Your task to perform on an android device: turn on translation in the chrome app Image 0: 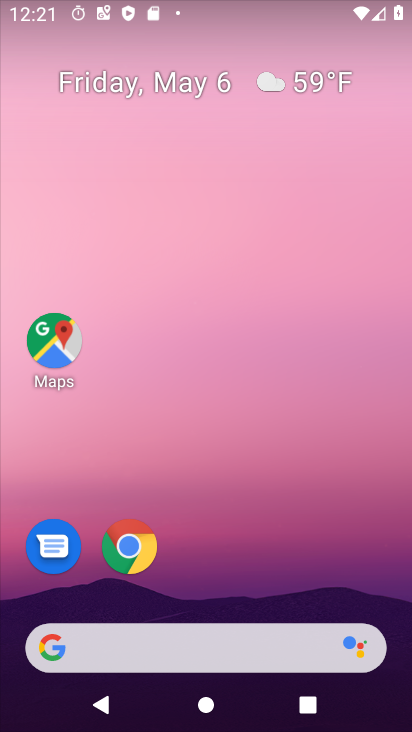
Step 0: click (137, 557)
Your task to perform on an android device: turn on translation in the chrome app Image 1: 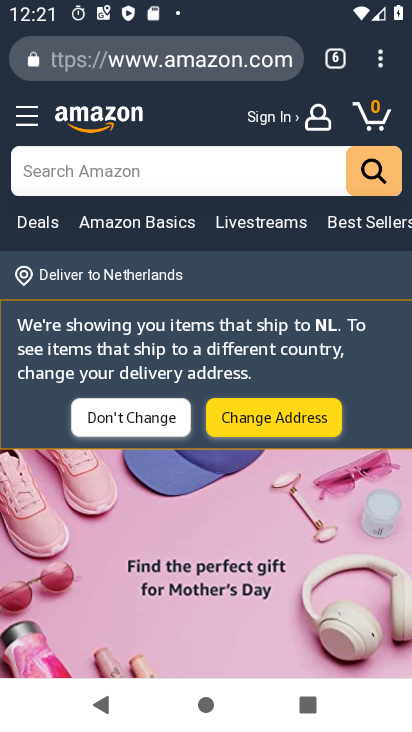
Step 1: click (386, 59)
Your task to perform on an android device: turn on translation in the chrome app Image 2: 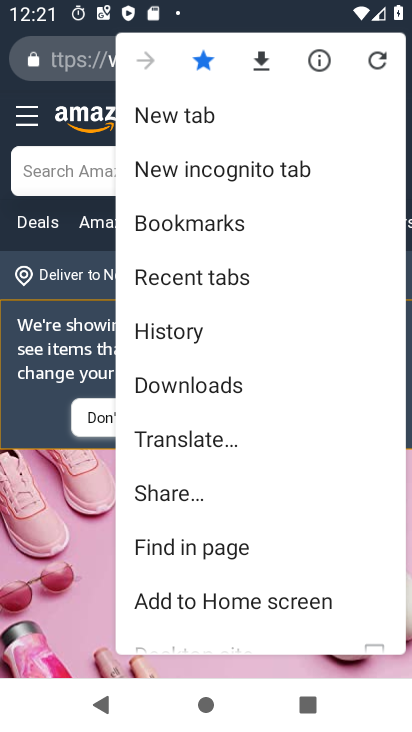
Step 2: drag from (229, 563) to (252, 268)
Your task to perform on an android device: turn on translation in the chrome app Image 3: 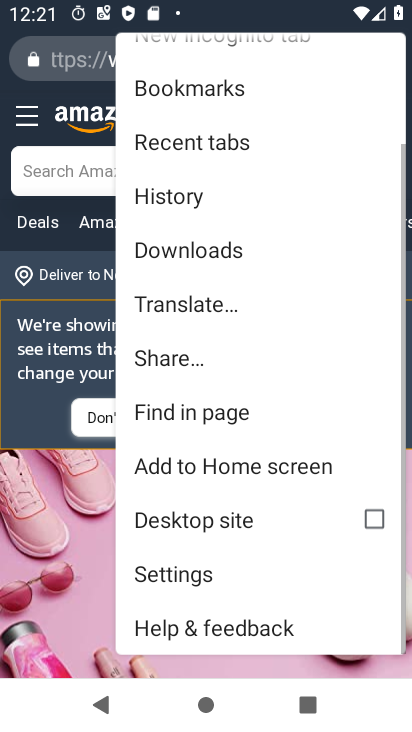
Step 3: click (216, 580)
Your task to perform on an android device: turn on translation in the chrome app Image 4: 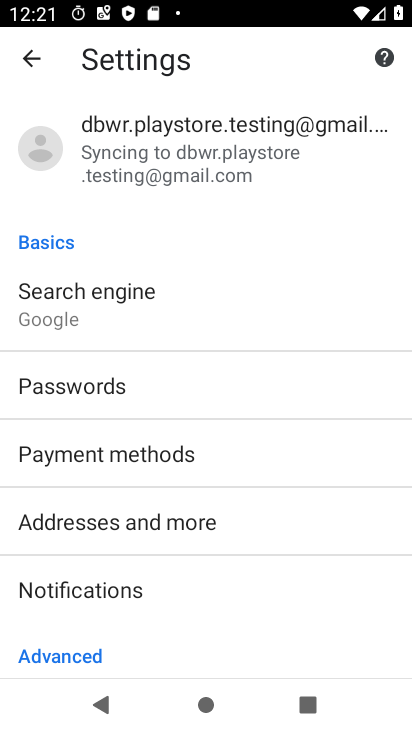
Step 4: drag from (242, 584) to (242, 392)
Your task to perform on an android device: turn on translation in the chrome app Image 5: 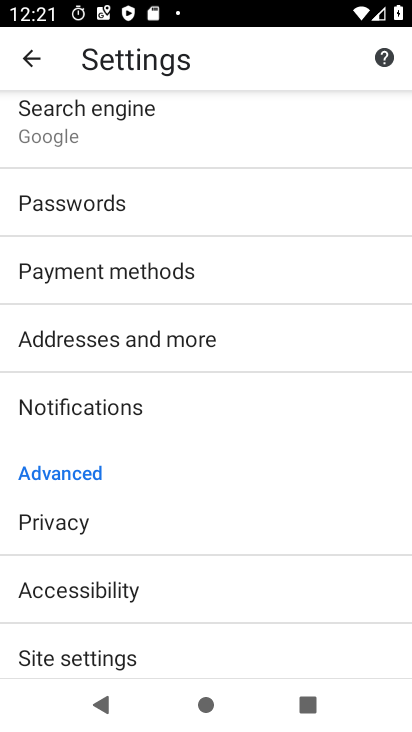
Step 5: drag from (214, 584) to (243, 322)
Your task to perform on an android device: turn on translation in the chrome app Image 6: 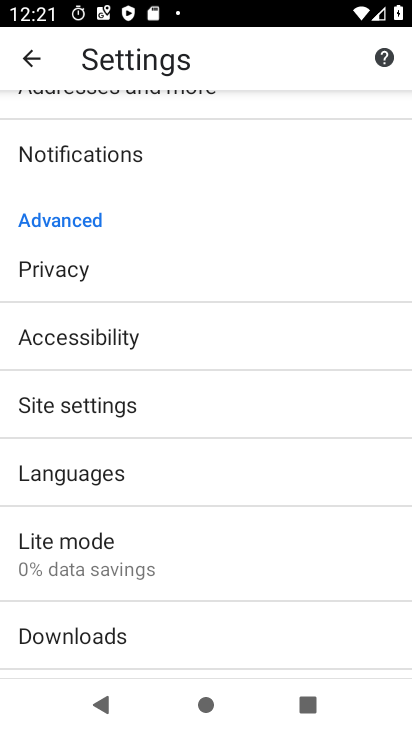
Step 6: click (128, 474)
Your task to perform on an android device: turn on translation in the chrome app Image 7: 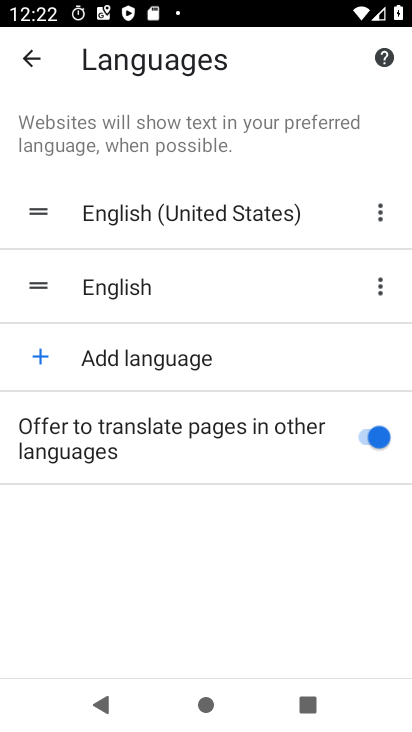
Step 7: task complete